Your task to perform on an android device: install app "PlayWell" Image 0: 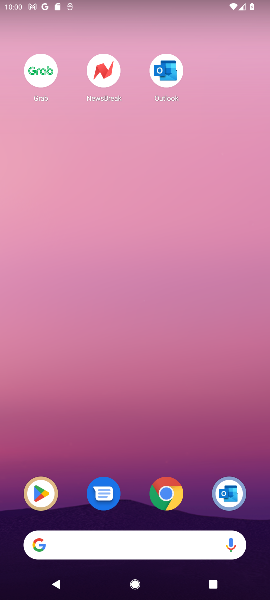
Step 0: click (47, 488)
Your task to perform on an android device: install app "PlayWell" Image 1: 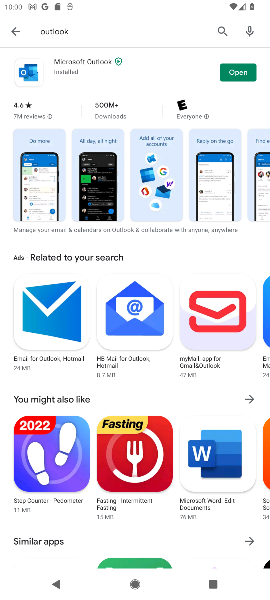
Step 1: click (209, 38)
Your task to perform on an android device: install app "PlayWell" Image 2: 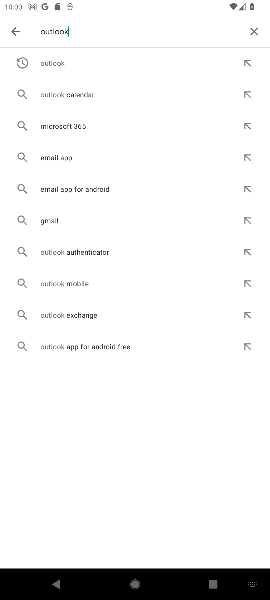
Step 2: click (252, 38)
Your task to perform on an android device: install app "PlayWell" Image 3: 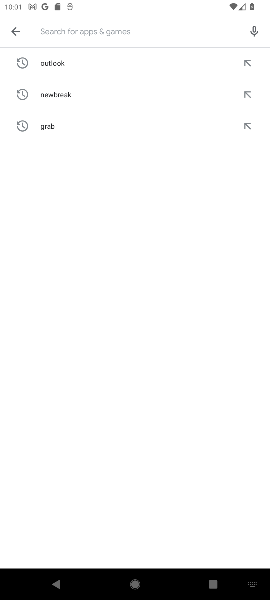
Step 3: type "playwewll"
Your task to perform on an android device: install app "PlayWell" Image 4: 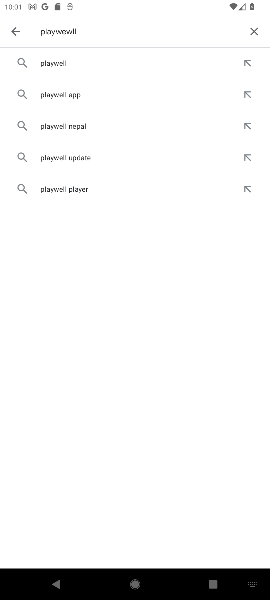
Step 4: click (30, 60)
Your task to perform on an android device: install app "PlayWell" Image 5: 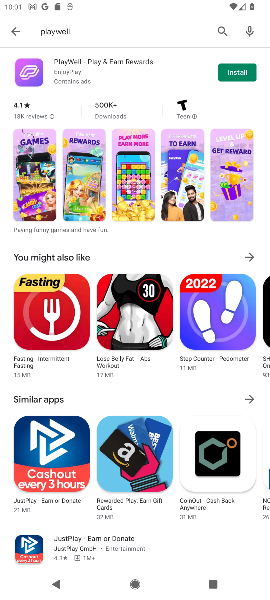
Step 5: click (237, 70)
Your task to perform on an android device: install app "PlayWell" Image 6: 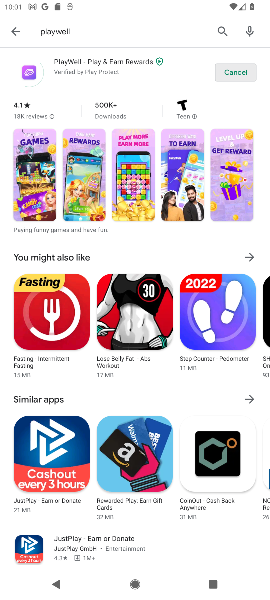
Step 6: task complete